Your task to perform on an android device: Open notification settings Image 0: 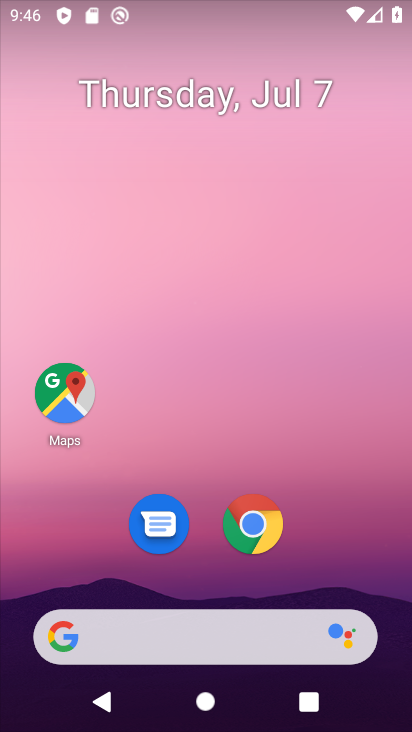
Step 0: drag from (232, 455) to (196, 6)
Your task to perform on an android device: Open notification settings Image 1: 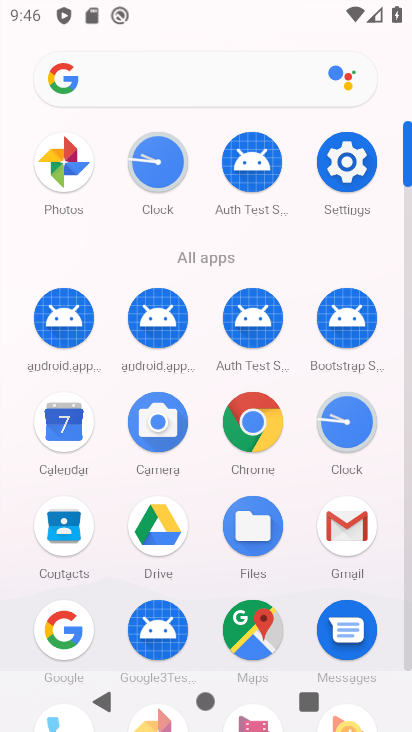
Step 1: click (337, 165)
Your task to perform on an android device: Open notification settings Image 2: 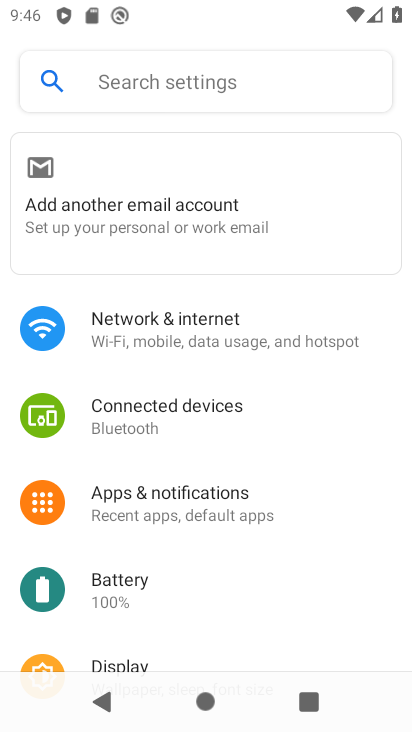
Step 2: click (206, 505)
Your task to perform on an android device: Open notification settings Image 3: 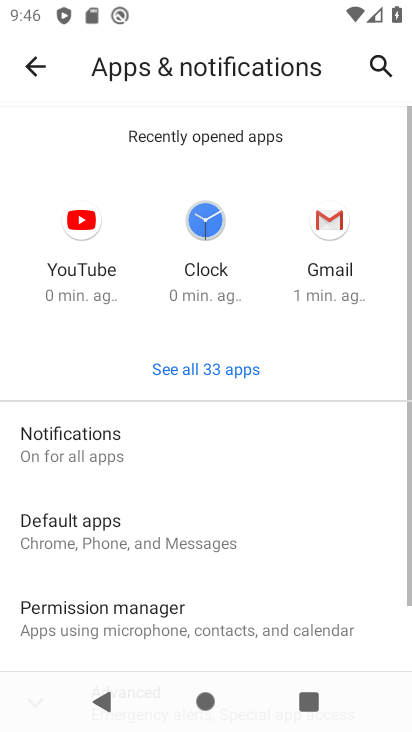
Step 3: click (97, 443)
Your task to perform on an android device: Open notification settings Image 4: 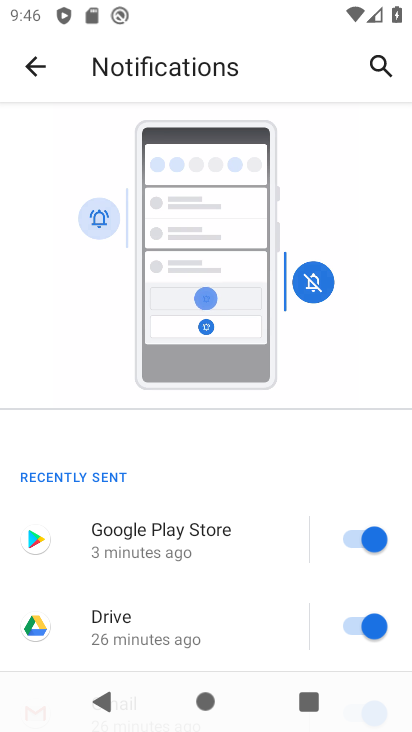
Step 4: task complete